Your task to perform on an android device: Open Android settings Image 0: 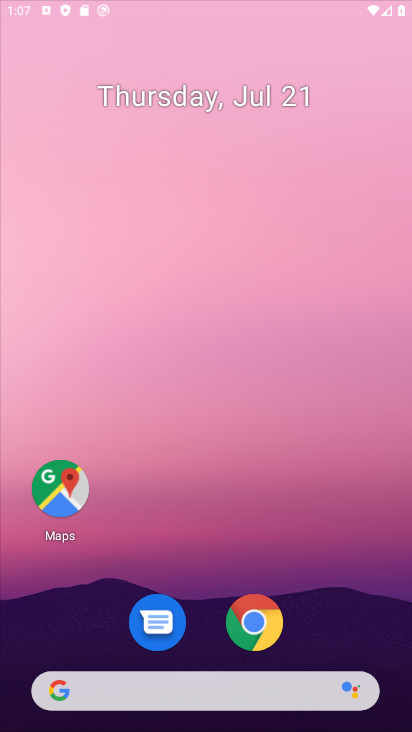
Step 0: drag from (277, 587) to (315, 203)
Your task to perform on an android device: Open Android settings Image 1: 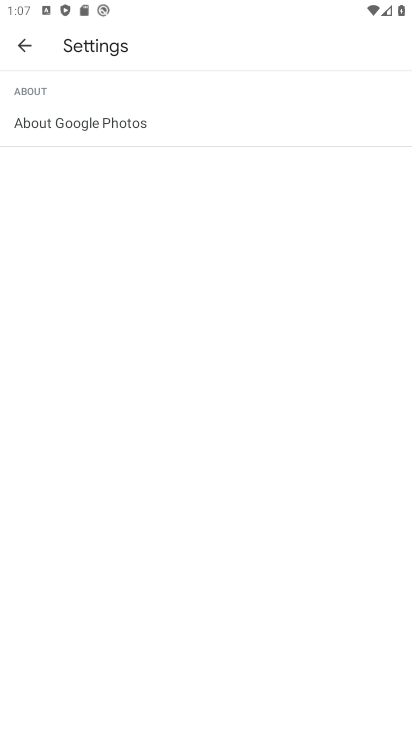
Step 1: press home button
Your task to perform on an android device: Open Android settings Image 2: 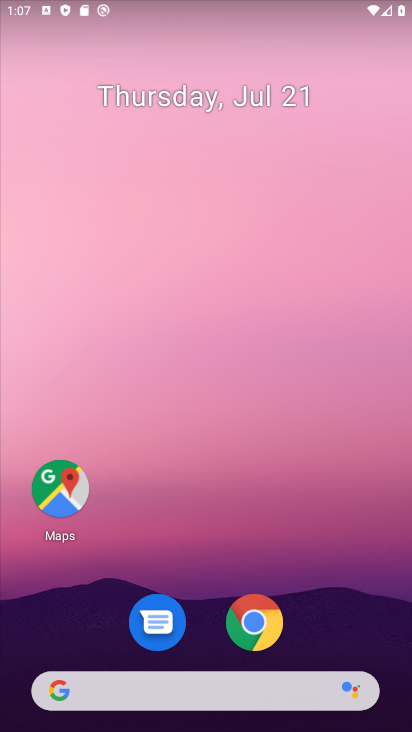
Step 2: drag from (244, 715) to (236, 125)
Your task to perform on an android device: Open Android settings Image 3: 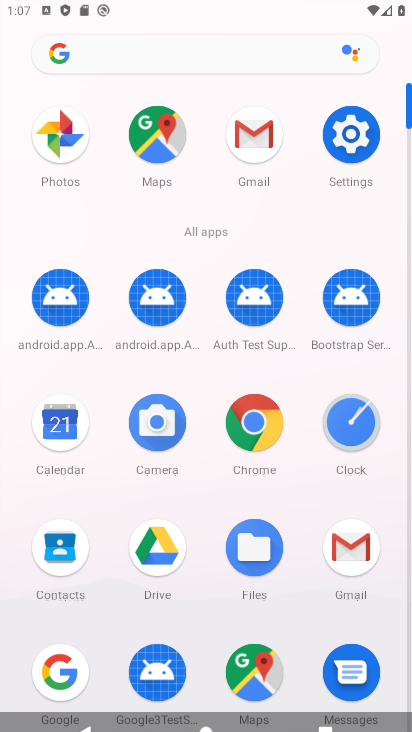
Step 3: click (362, 150)
Your task to perform on an android device: Open Android settings Image 4: 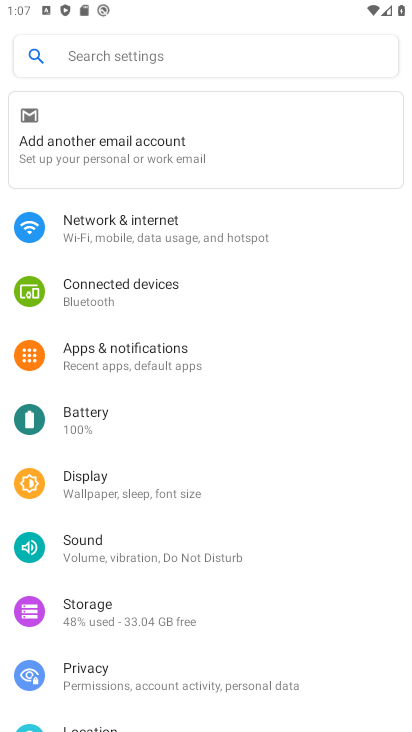
Step 4: click (106, 64)
Your task to perform on an android device: Open Android settings Image 5: 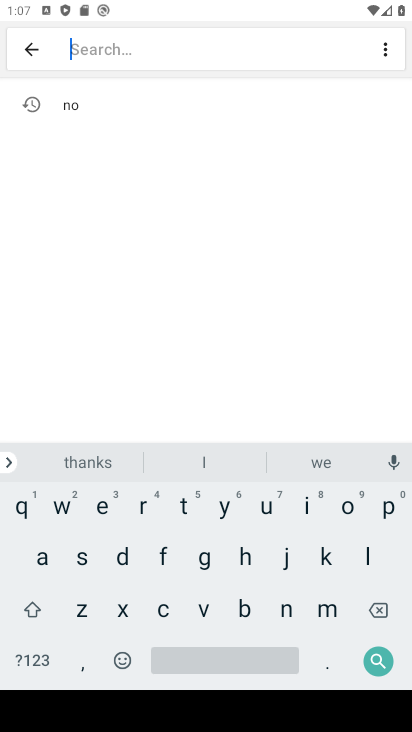
Step 5: click (43, 557)
Your task to perform on an android device: Open Android settings Image 6: 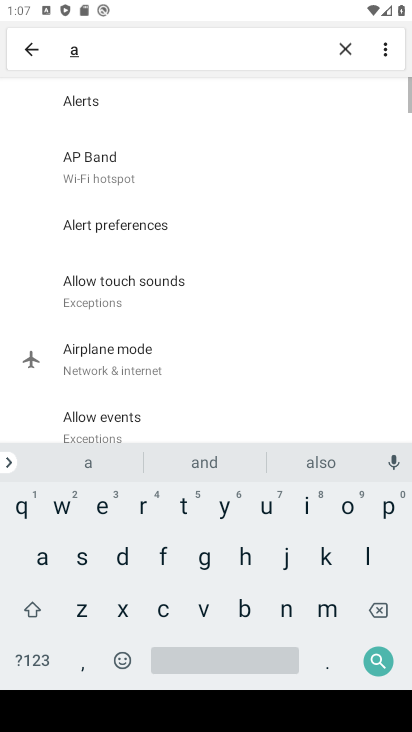
Step 6: click (289, 613)
Your task to perform on an android device: Open Android settings Image 7: 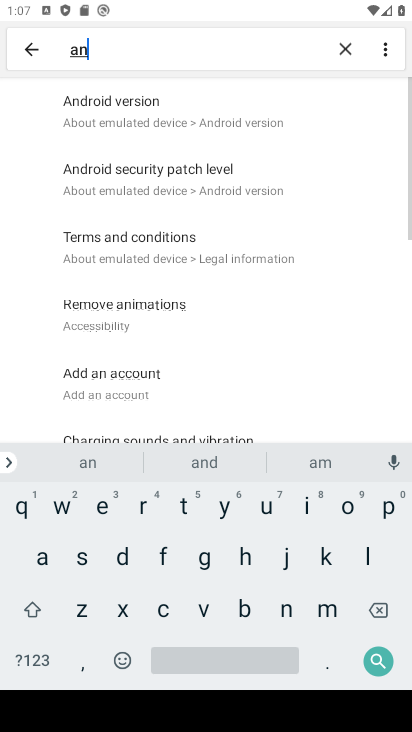
Step 7: click (136, 110)
Your task to perform on an android device: Open Android settings Image 8: 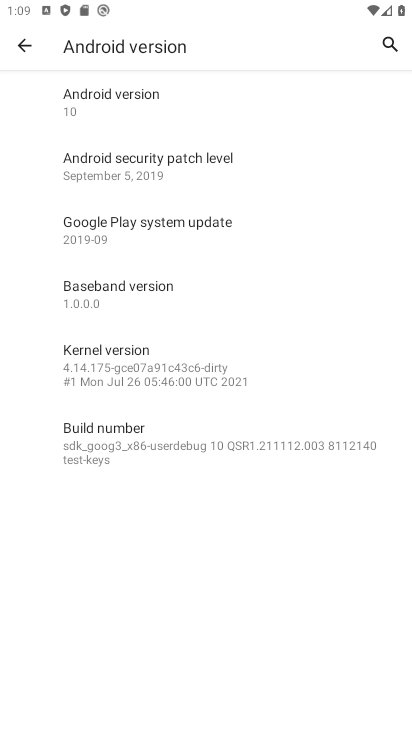
Step 8: task complete